Your task to perform on an android device: toggle pop-ups in chrome Image 0: 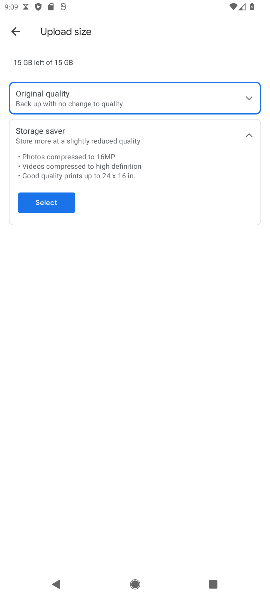
Step 0: press home button
Your task to perform on an android device: toggle pop-ups in chrome Image 1: 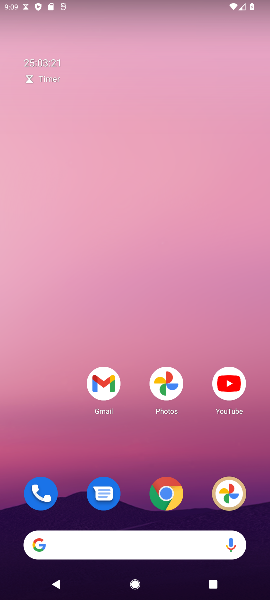
Step 1: drag from (28, 454) to (83, 103)
Your task to perform on an android device: toggle pop-ups in chrome Image 2: 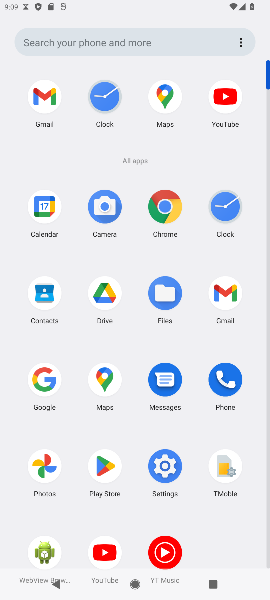
Step 2: click (170, 205)
Your task to perform on an android device: toggle pop-ups in chrome Image 3: 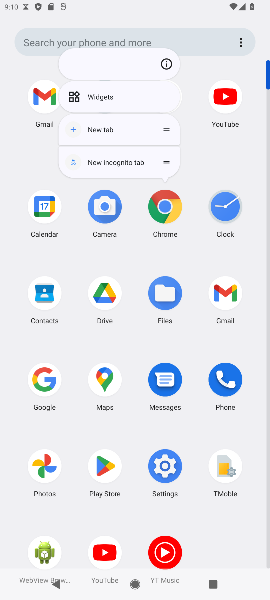
Step 3: click (170, 205)
Your task to perform on an android device: toggle pop-ups in chrome Image 4: 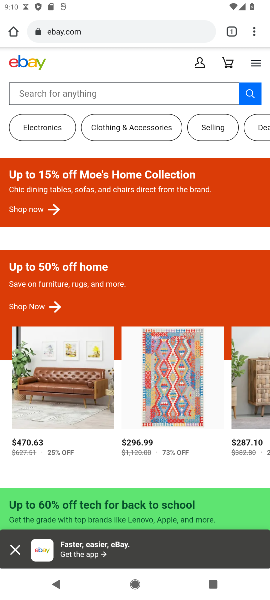
Step 4: drag from (253, 32) to (173, 413)
Your task to perform on an android device: toggle pop-ups in chrome Image 5: 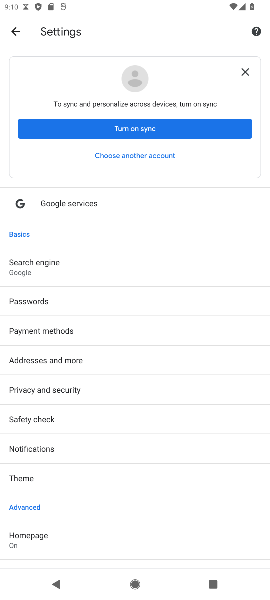
Step 5: drag from (182, 431) to (151, 149)
Your task to perform on an android device: toggle pop-ups in chrome Image 6: 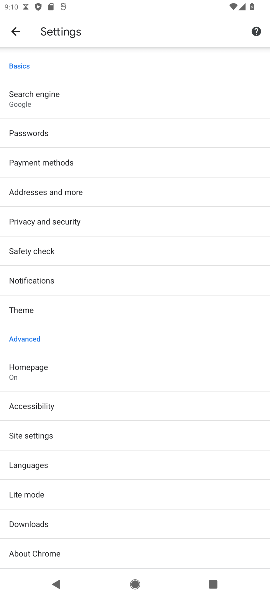
Step 6: drag from (118, 390) to (101, 210)
Your task to perform on an android device: toggle pop-ups in chrome Image 7: 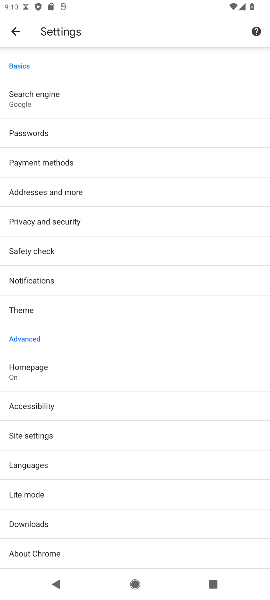
Step 7: drag from (126, 346) to (132, 120)
Your task to perform on an android device: toggle pop-ups in chrome Image 8: 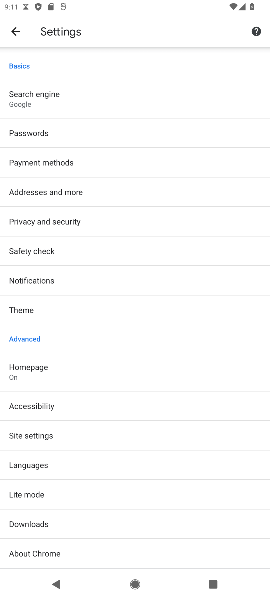
Step 8: click (57, 443)
Your task to perform on an android device: toggle pop-ups in chrome Image 9: 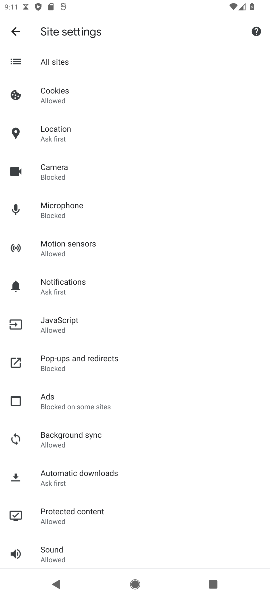
Step 9: drag from (94, 487) to (105, 225)
Your task to perform on an android device: toggle pop-ups in chrome Image 10: 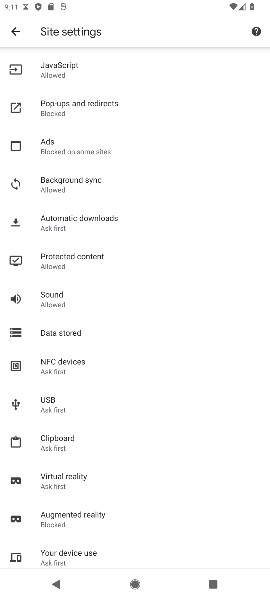
Step 10: drag from (140, 473) to (179, 273)
Your task to perform on an android device: toggle pop-ups in chrome Image 11: 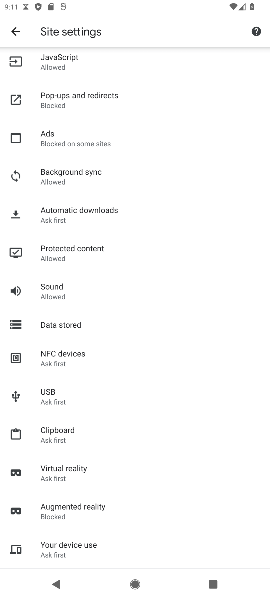
Step 11: drag from (159, 208) to (181, 463)
Your task to perform on an android device: toggle pop-ups in chrome Image 12: 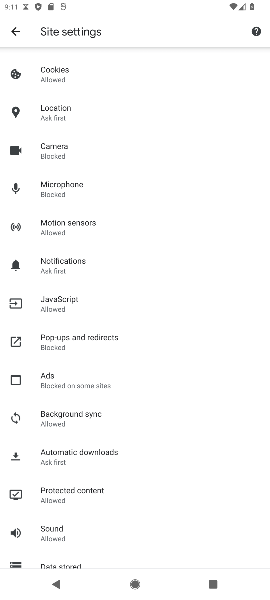
Step 12: drag from (105, 194) to (176, 481)
Your task to perform on an android device: toggle pop-ups in chrome Image 13: 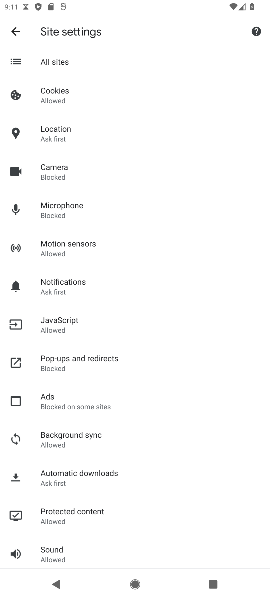
Step 13: click (99, 371)
Your task to perform on an android device: toggle pop-ups in chrome Image 14: 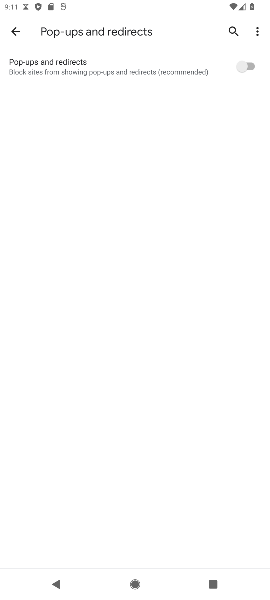
Step 14: click (248, 70)
Your task to perform on an android device: toggle pop-ups in chrome Image 15: 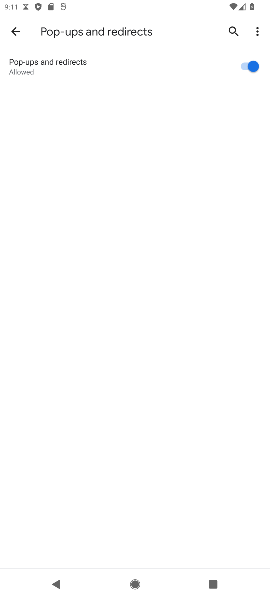
Step 15: task complete